Your task to perform on an android device: Do I have any events this weekend? Image 0: 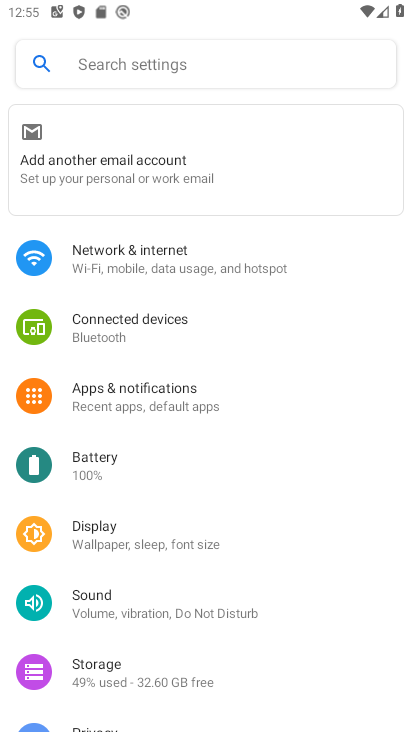
Step 0: press back button
Your task to perform on an android device: Do I have any events this weekend? Image 1: 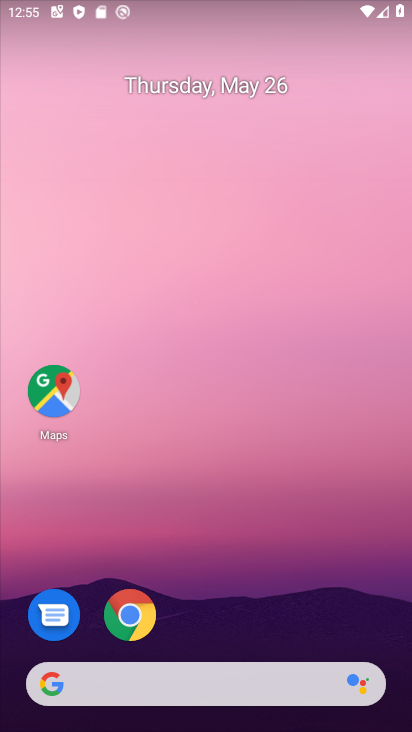
Step 1: drag from (247, 671) to (329, 77)
Your task to perform on an android device: Do I have any events this weekend? Image 2: 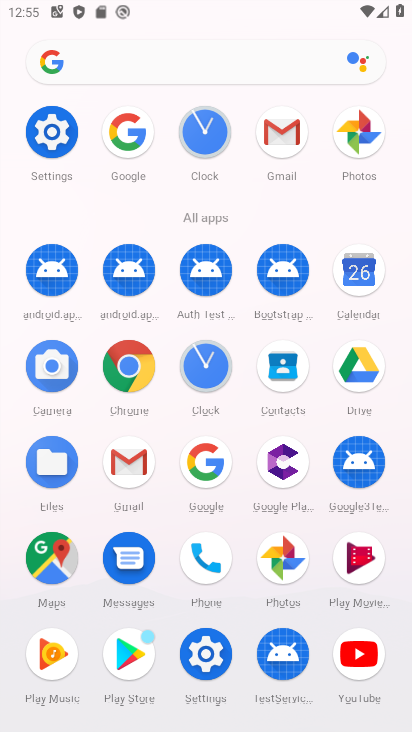
Step 2: click (367, 234)
Your task to perform on an android device: Do I have any events this weekend? Image 3: 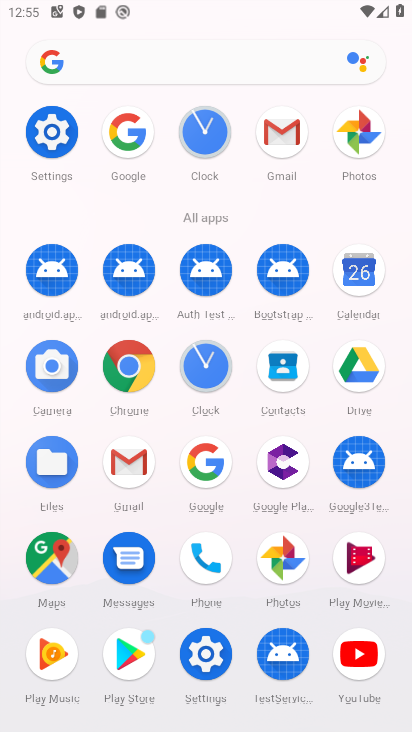
Step 3: click (352, 271)
Your task to perform on an android device: Do I have any events this weekend? Image 4: 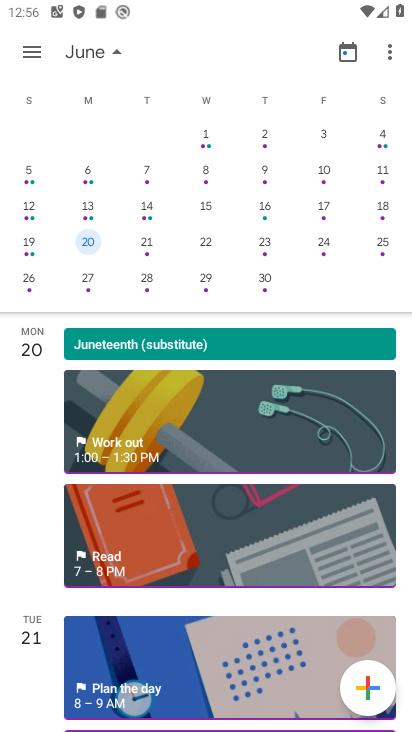
Step 4: drag from (20, 211) to (410, 167)
Your task to perform on an android device: Do I have any events this weekend? Image 5: 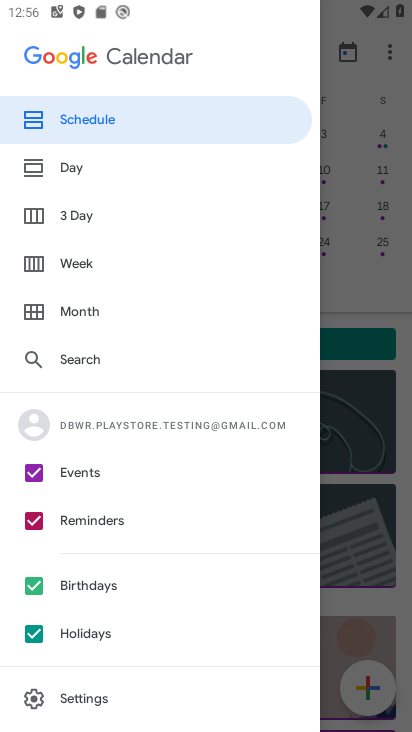
Step 5: click (397, 172)
Your task to perform on an android device: Do I have any events this weekend? Image 6: 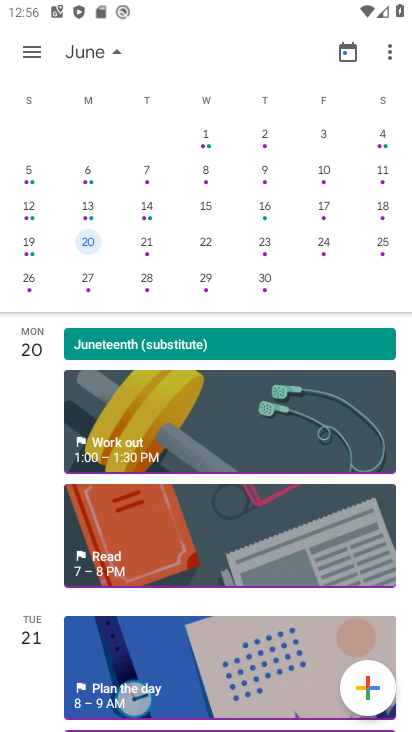
Step 6: drag from (138, 200) to (403, 209)
Your task to perform on an android device: Do I have any events this weekend? Image 7: 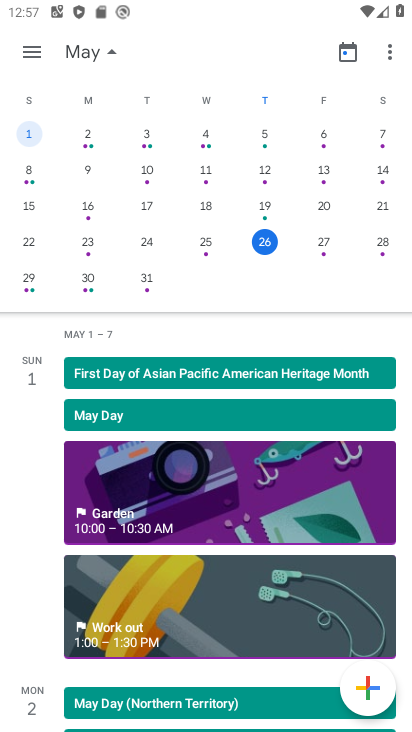
Step 7: click (387, 243)
Your task to perform on an android device: Do I have any events this weekend? Image 8: 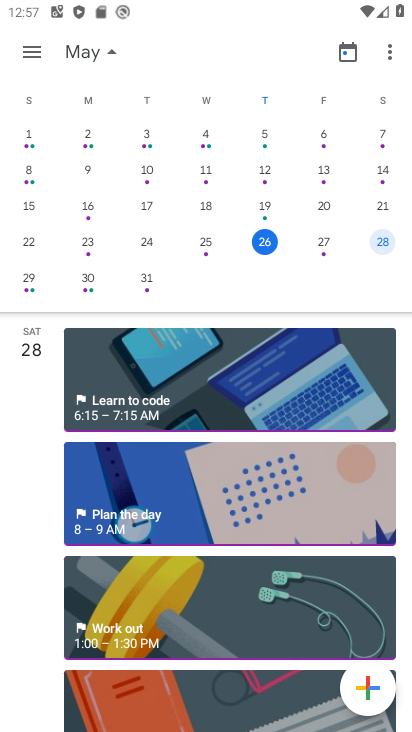
Step 8: drag from (218, 709) to (251, 439)
Your task to perform on an android device: Do I have any events this weekend? Image 9: 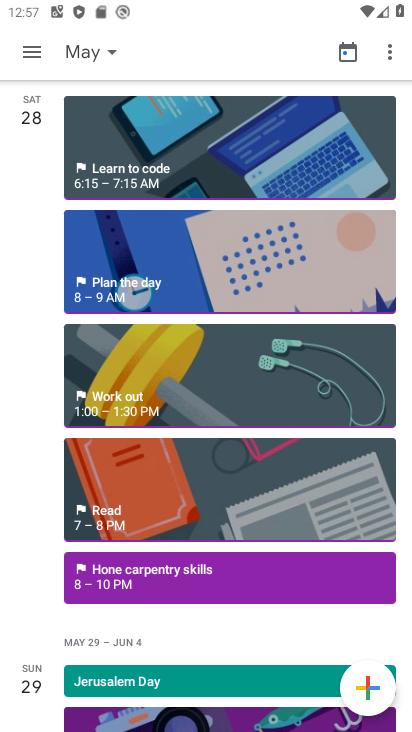
Step 9: click (120, 385)
Your task to perform on an android device: Do I have any events this weekend? Image 10: 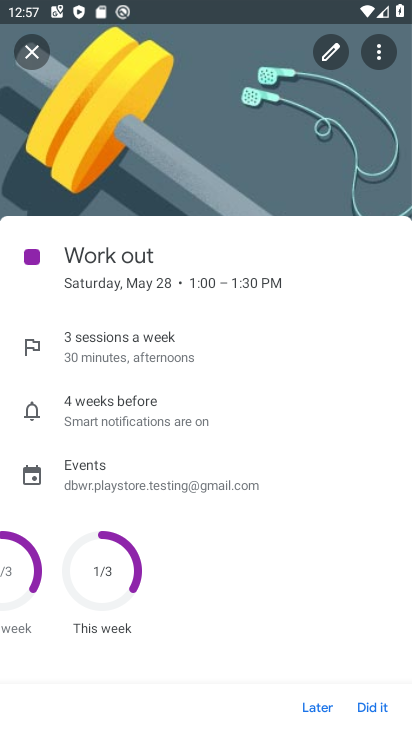
Step 10: task complete